Your task to perform on an android device: Find coffee shops on Maps Image 0: 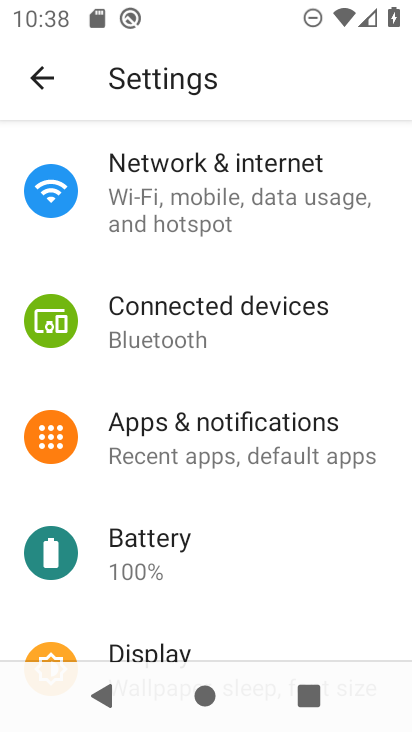
Step 0: press home button
Your task to perform on an android device: Find coffee shops on Maps Image 1: 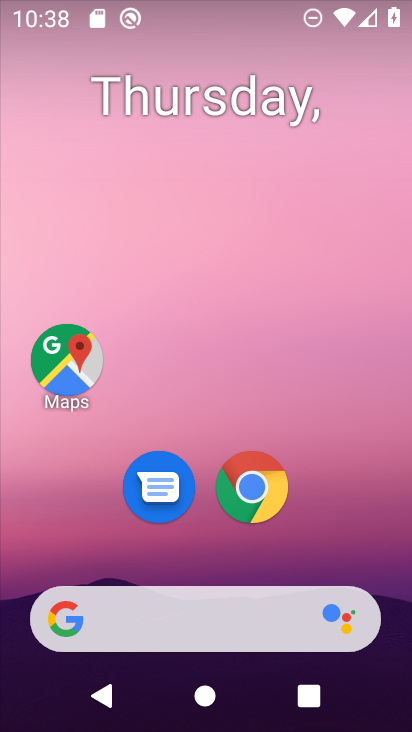
Step 1: click (67, 365)
Your task to perform on an android device: Find coffee shops on Maps Image 2: 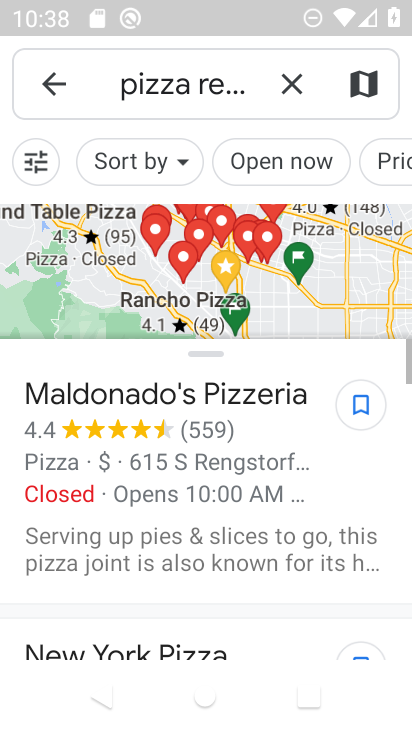
Step 2: click (290, 83)
Your task to perform on an android device: Find coffee shops on Maps Image 3: 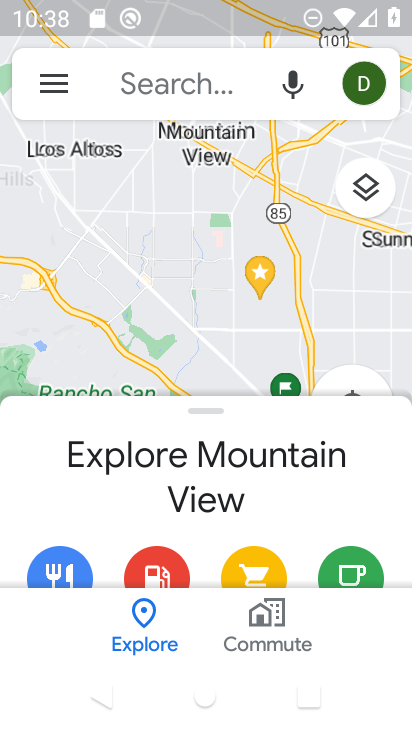
Step 3: click (191, 95)
Your task to perform on an android device: Find coffee shops on Maps Image 4: 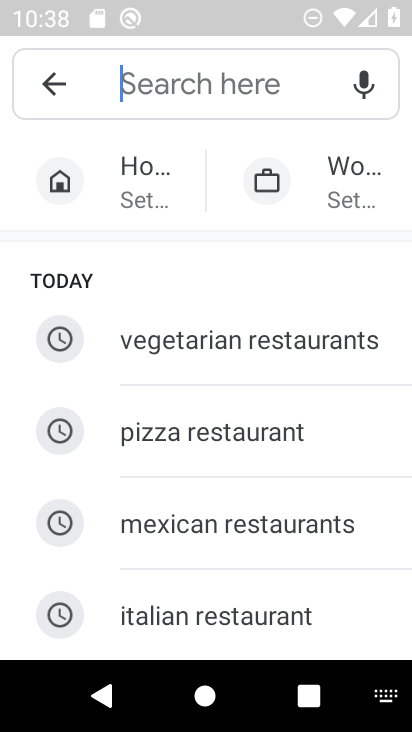
Step 4: drag from (165, 575) to (131, 153)
Your task to perform on an android device: Find coffee shops on Maps Image 5: 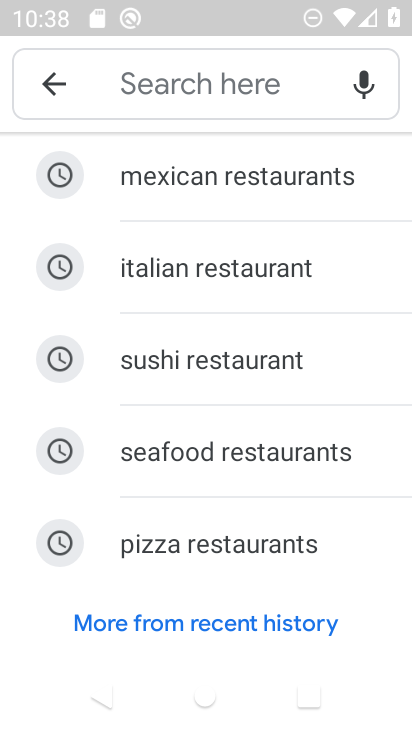
Step 5: click (178, 83)
Your task to perform on an android device: Find coffee shops on Maps Image 6: 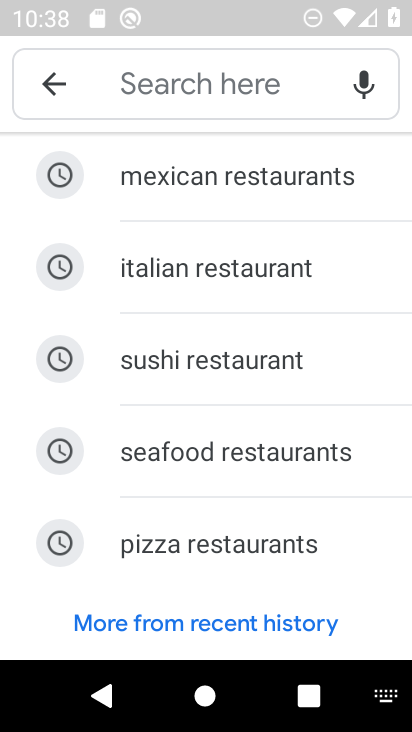
Step 6: type "coffee"
Your task to perform on an android device: Find coffee shops on Maps Image 7: 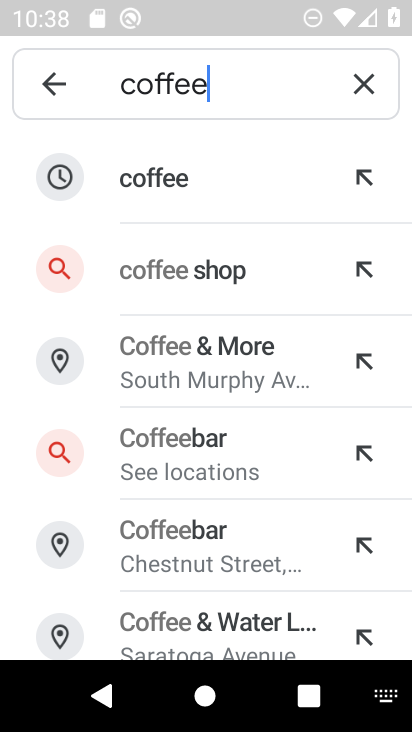
Step 7: click (184, 202)
Your task to perform on an android device: Find coffee shops on Maps Image 8: 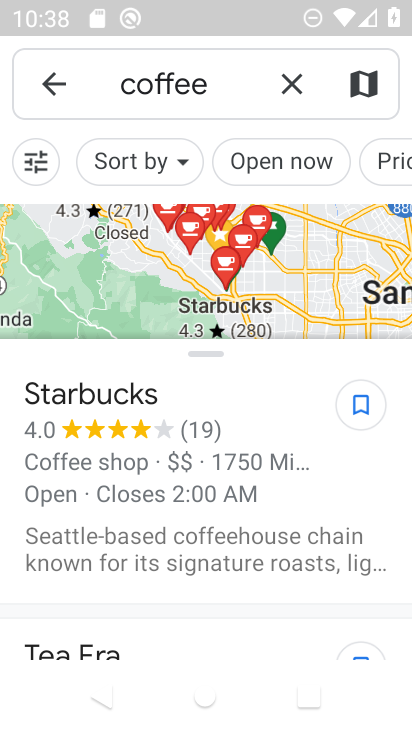
Step 8: task complete